Your task to perform on an android device: turn on location history Image 0: 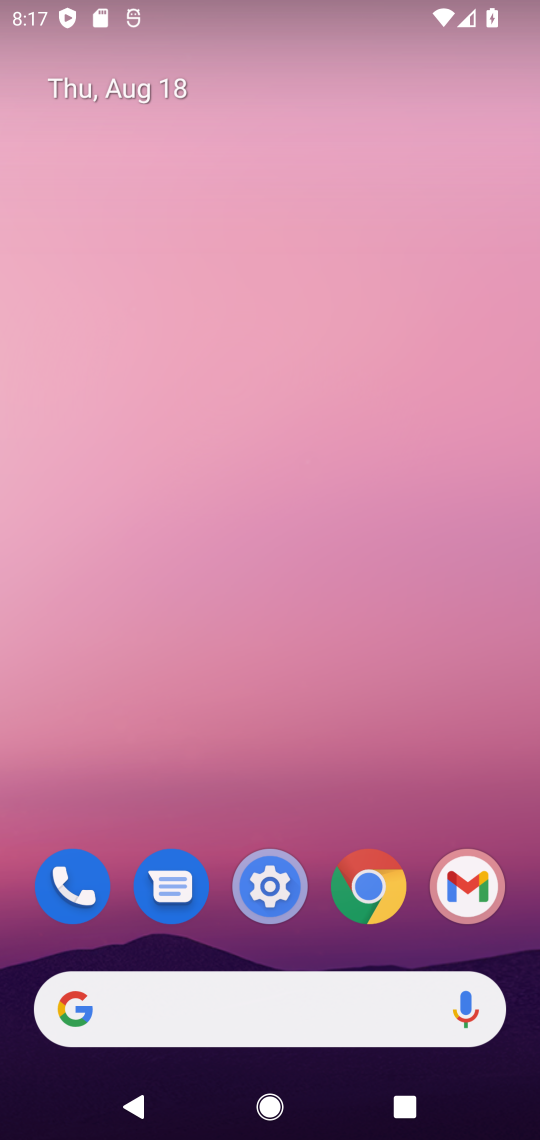
Step 0: press home button
Your task to perform on an android device: turn on location history Image 1: 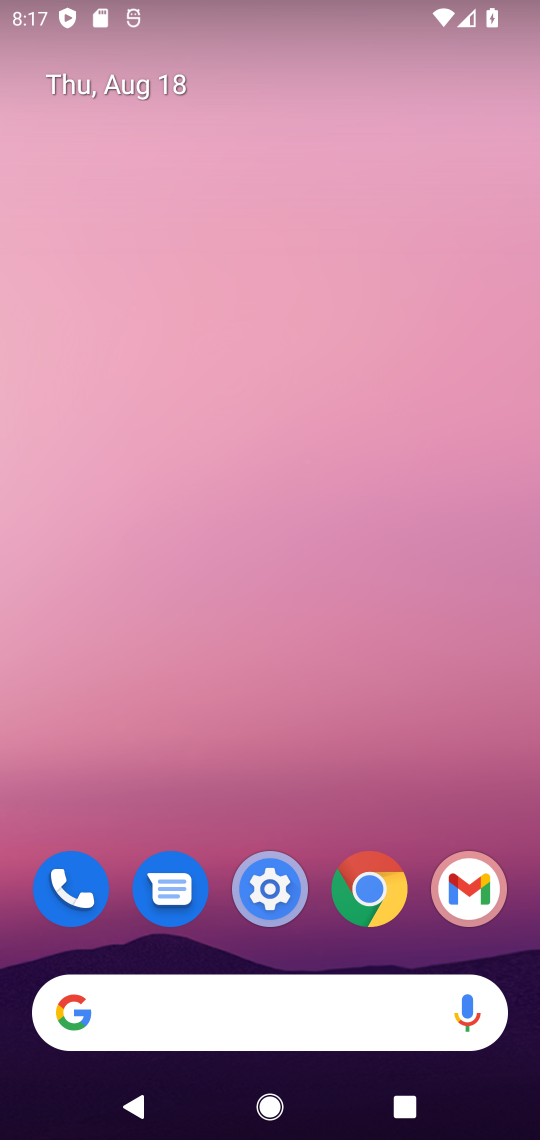
Step 1: click (254, 900)
Your task to perform on an android device: turn on location history Image 2: 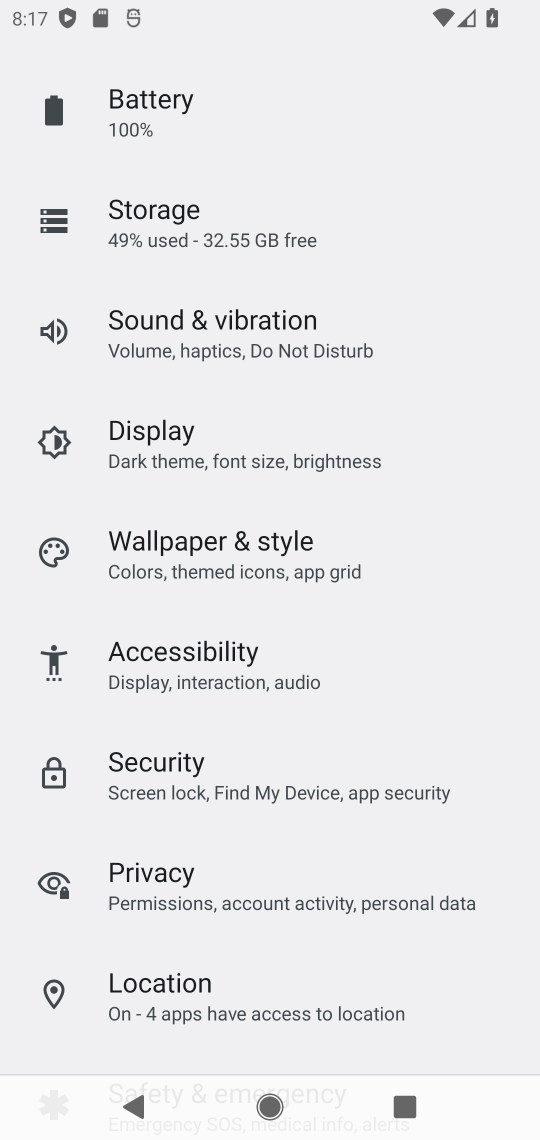
Step 2: click (187, 1006)
Your task to perform on an android device: turn on location history Image 3: 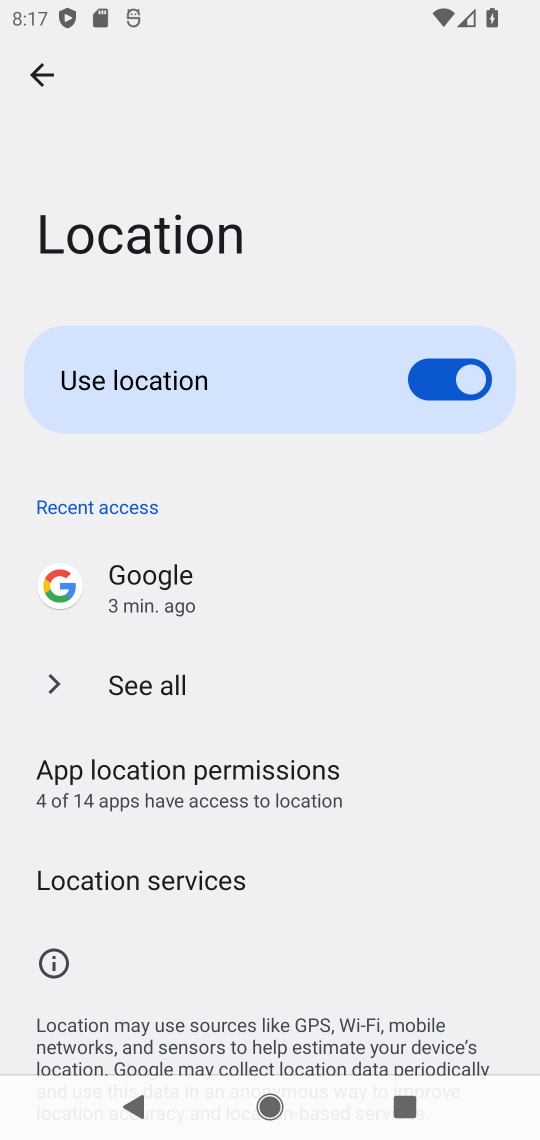
Step 3: click (145, 888)
Your task to perform on an android device: turn on location history Image 4: 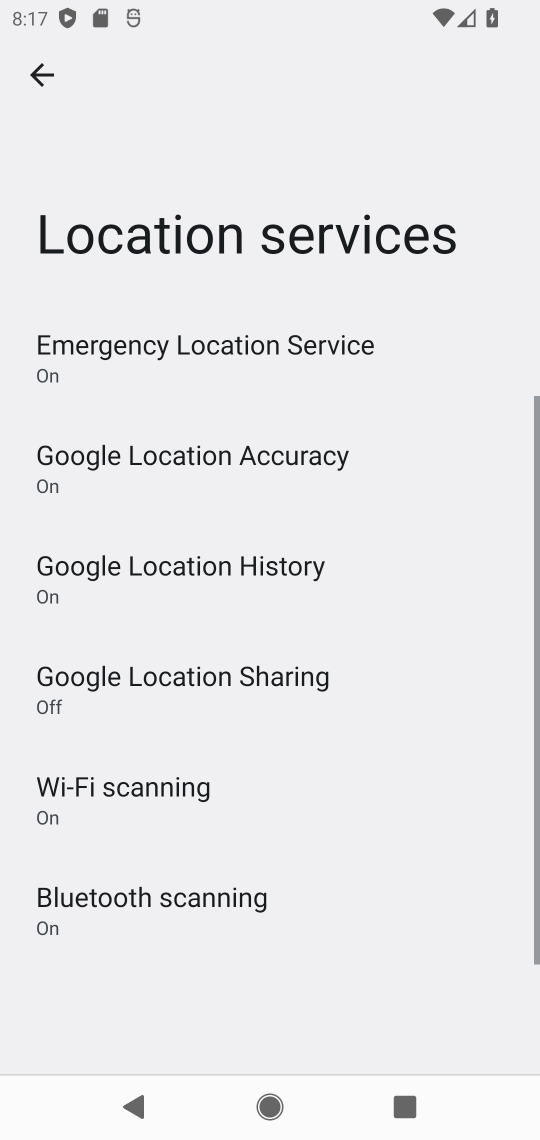
Step 4: click (174, 568)
Your task to perform on an android device: turn on location history Image 5: 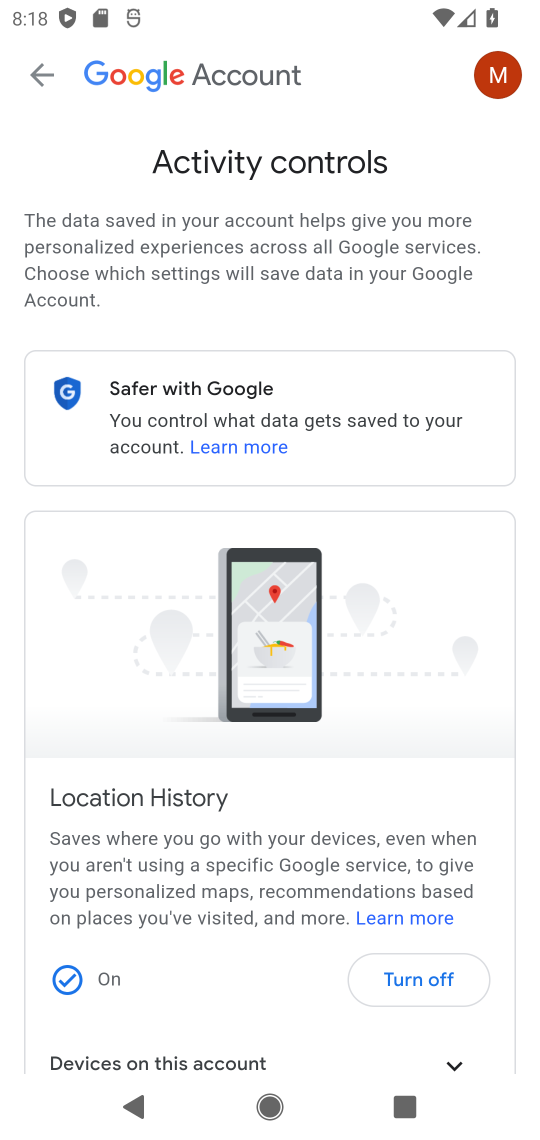
Step 5: task complete